Your task to perform on an android device: Is it going to rain this weekend? Image 0: 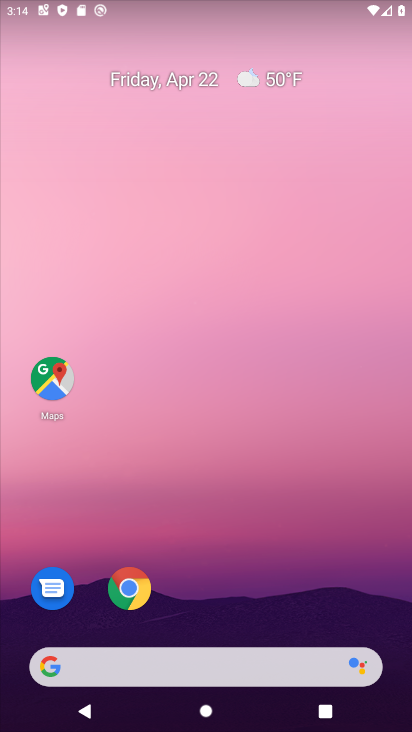
Step 0: click (220, 663)
Your task to perform on an android device: Is it going to rain this weekend? Image 1: 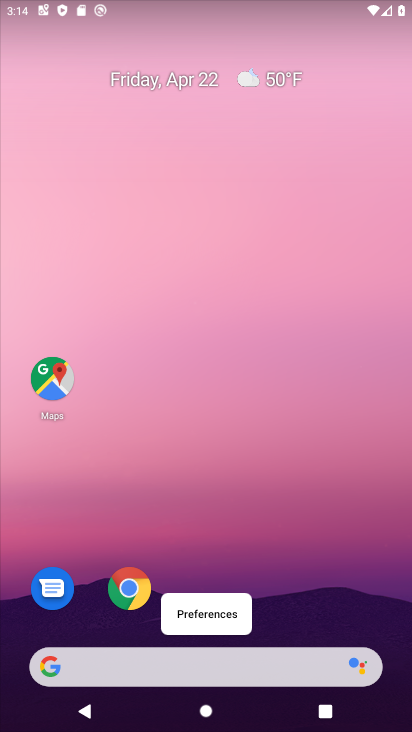
Step 1: click (287, 663)
Your task to perform on an android device: Is it going to rain this weekend? Image 2: 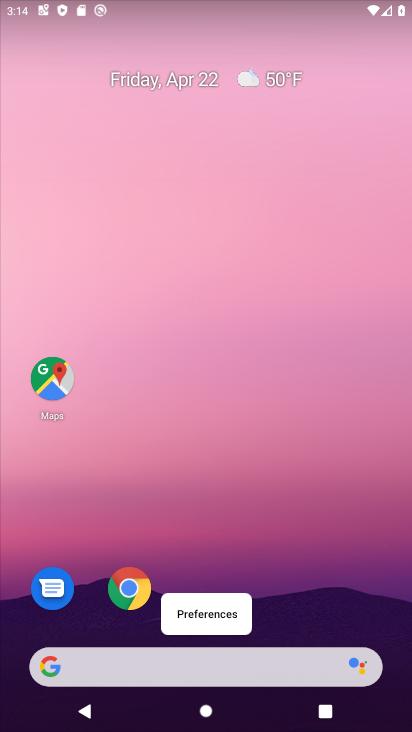
Step 2: click (251, 656)
Your task to perform on an android device: Is it going to rain this weekend? Image 3: 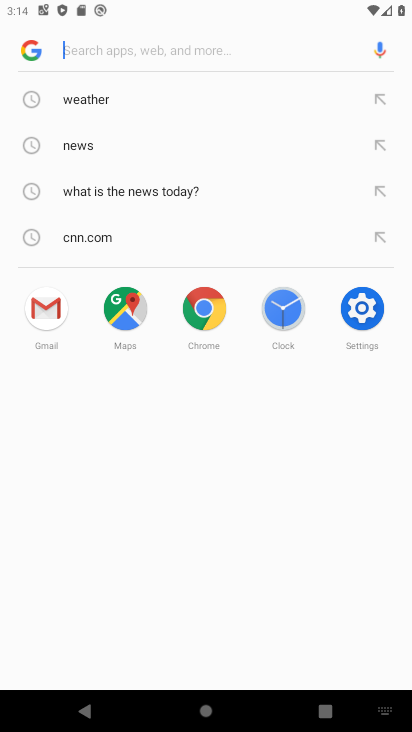
Step 3: click (92, 97)
Your task to perform on an android device: Is it going to rain this weekend? Image 4: 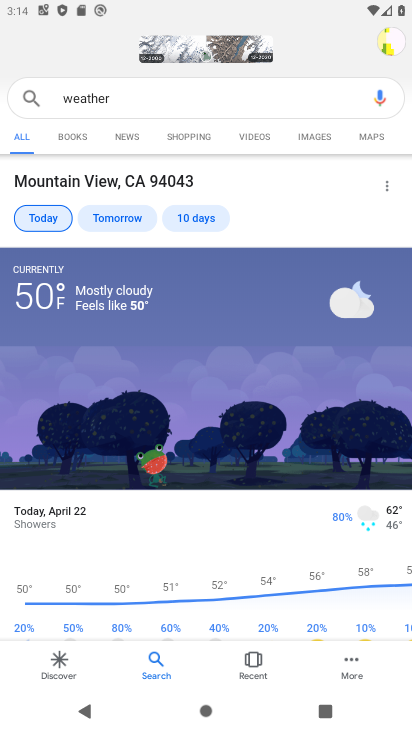
Step 4: click (197, 220)
Your task to perform on an android device: Is it going to rain this weekend? Image 5: 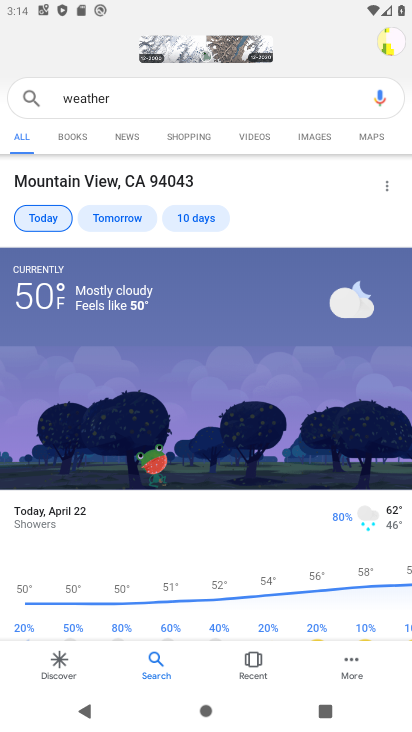
Step 5: click (197, 228)
Your task to perform on an android device: Is it going to rain this weekend? Image 6: 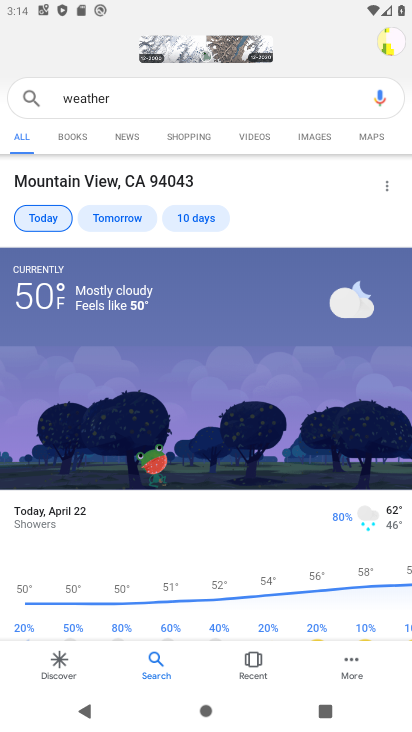
Step 6: click (203, 219)
Your task to perform on an android device: Is it going to rain this weekend? Image 7: 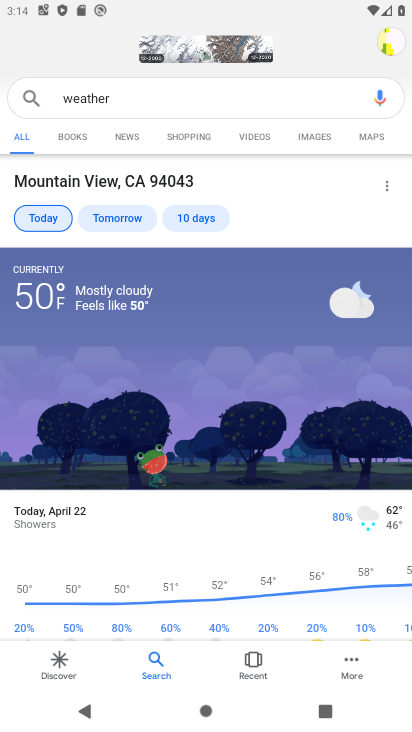
Step 7: click (209, 223)
Your task to perform on an android device: Is it going to rain this weekend? Image 8: 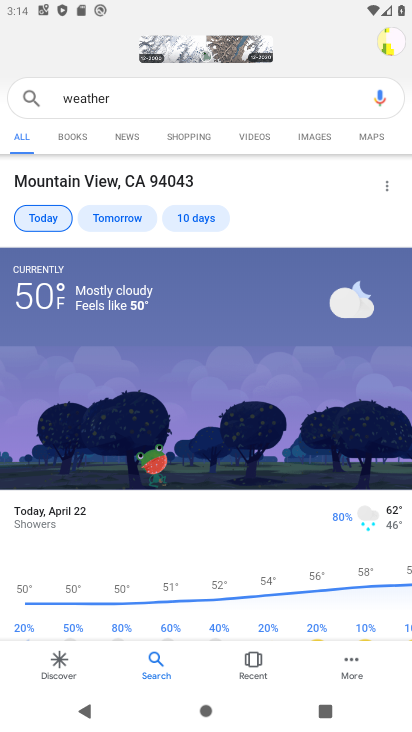
Step 8: click (208, 221)
Your task to perform on an android device: Is it going to rain this weekend? Image 9: 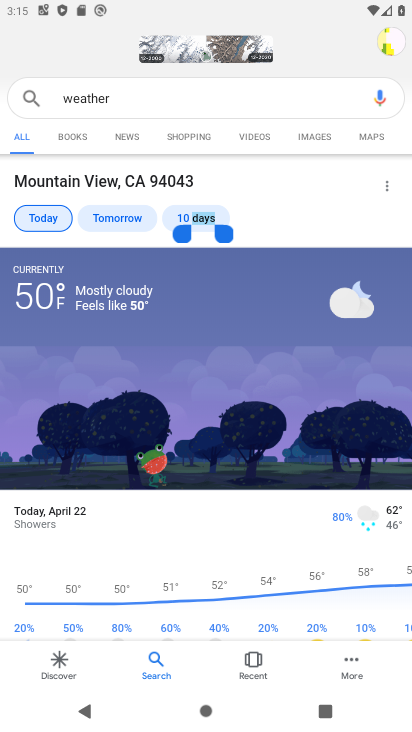
Step 9: task complete